Your task to perform on an android device: delete a single message in the gmail app Image 0: 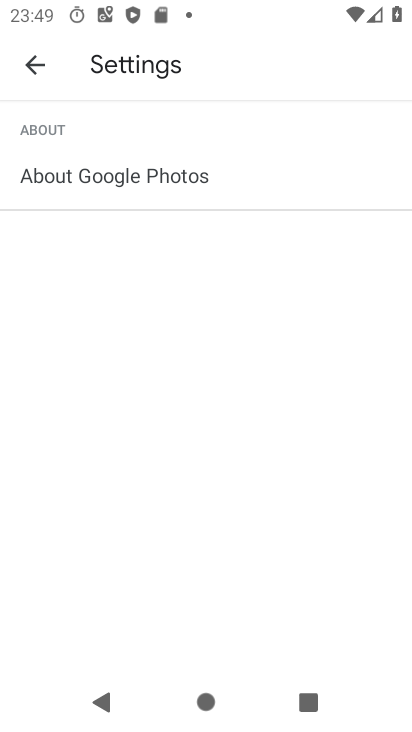
Step 0: press home button
Your task to perform on an android device: delete a single message in the gmail app Image 1: 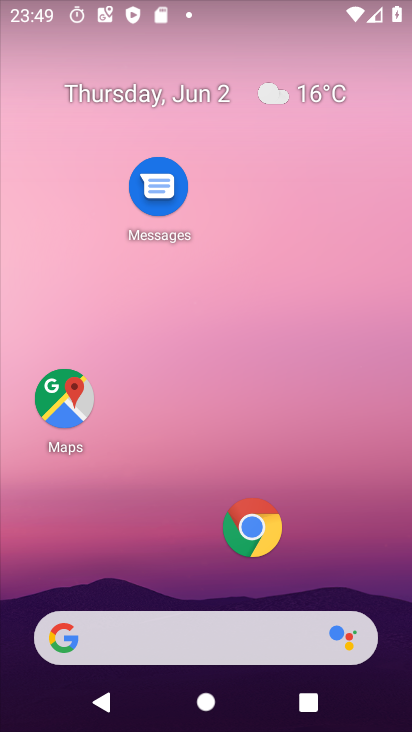
Step 1: drag from (209, 588) to (201, 74)
Your task to perform on an android device: delete a single message in the gmail app Image 2: 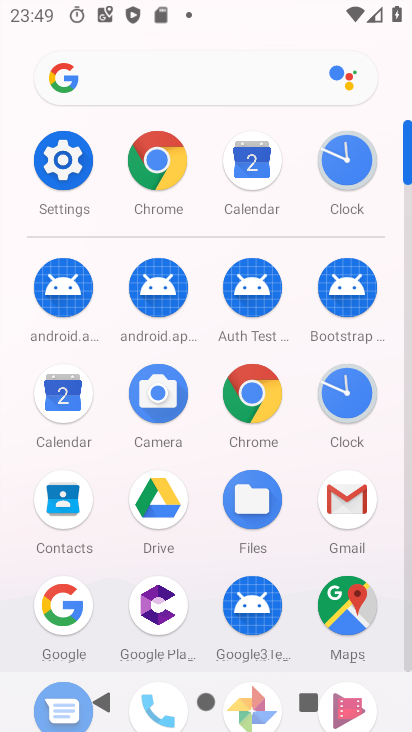
Step 2: click (347, 490)
Your task to perform on an android device: delete a single message in the gmail app Image 3: 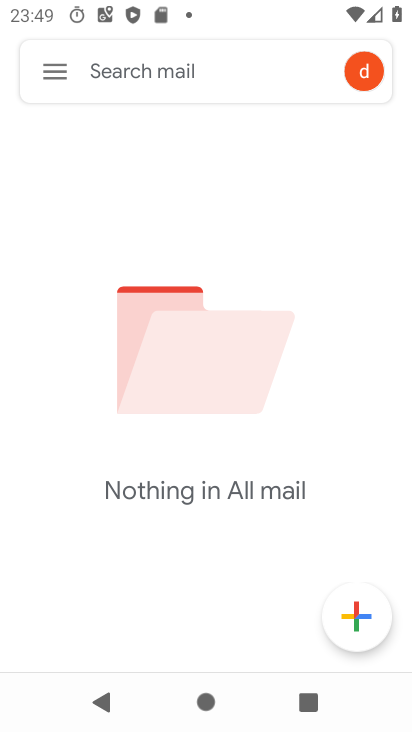
Step 3: task complete